Your task to perform on an android device: refresh tabs in the chrome app Image 0: 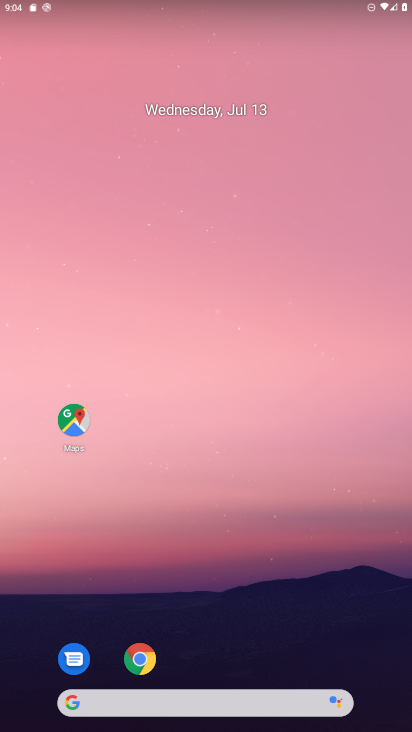
Step 0: click (141, 658)
Your task to perform on an android device: refresh tabs in the chrome app Image 1: 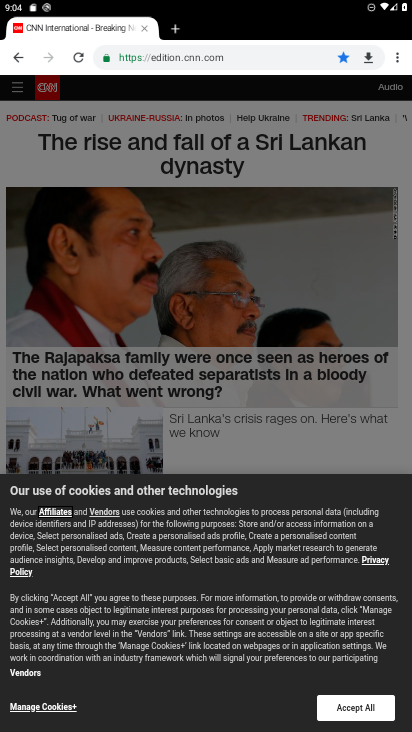
Step 1: click (72, 57)
Your task to perform on an android device: refresh tabs in the chrome app Image 2: 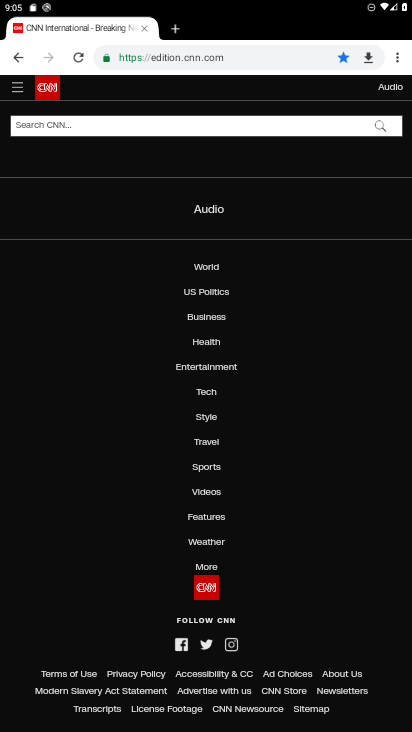
Step 2: task complete